Your task to perform on an android device: change keyboard looks Image 0: 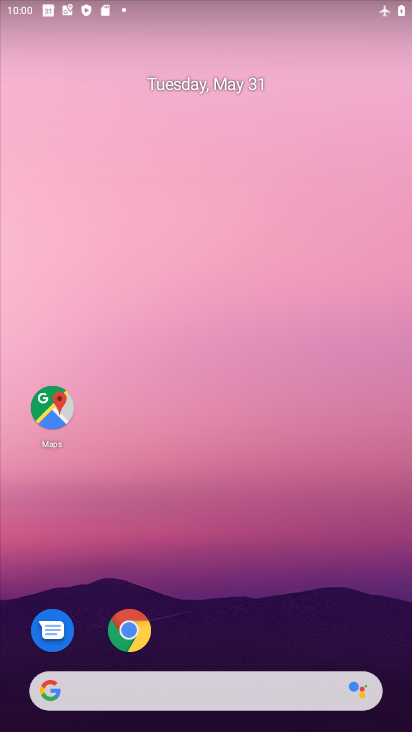
Step 0: drag from (211, 631) to (261, 155)
Your task to perform on an android device: change keyboard looks Image 1: 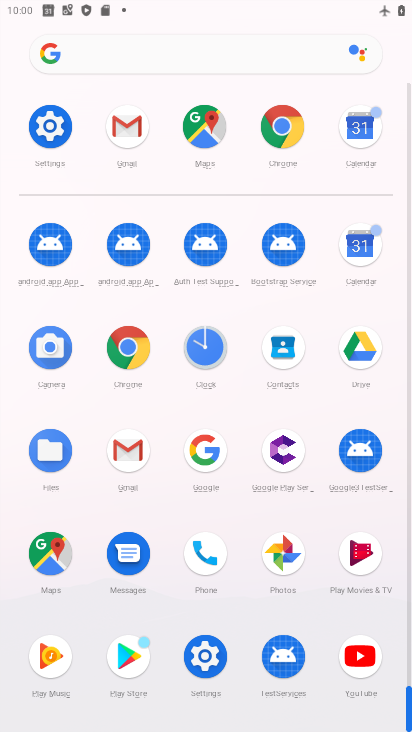
Step 1: click (55, 122)
Your task to perform on an android device: change keyboard looks Image 2: 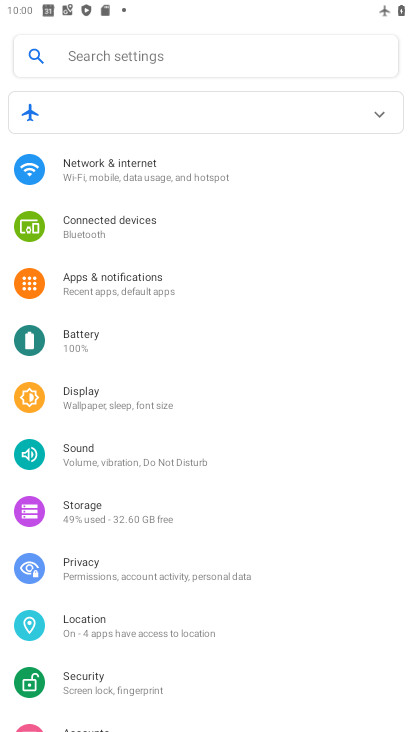
Step 2: drag from (166, 670) to (238, 289)
Your task to perform on an android device: change keyboard looks Image 3: 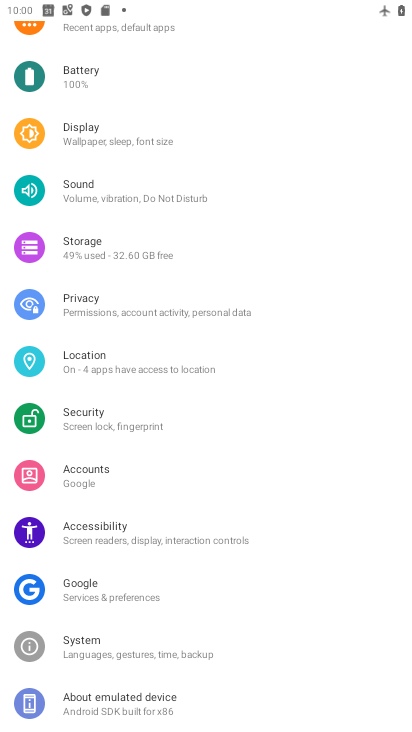
Step 3: click (152, 641)
Your task to perform on an android device: change keyboard looks Image 4: 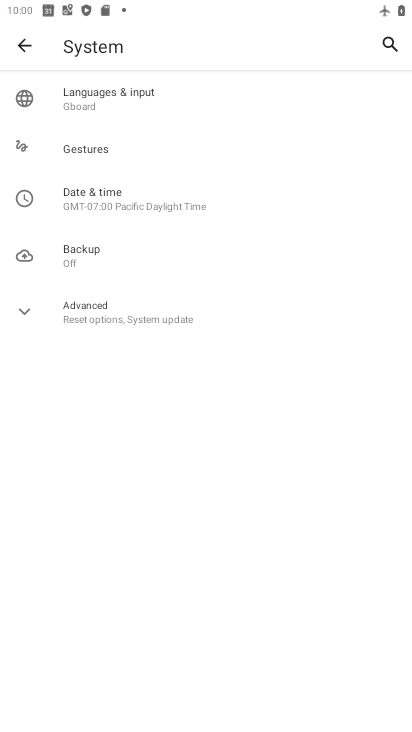
Step 4: click (106, 106)
Your task to perform on an android device: change keyboard looks Image 5: 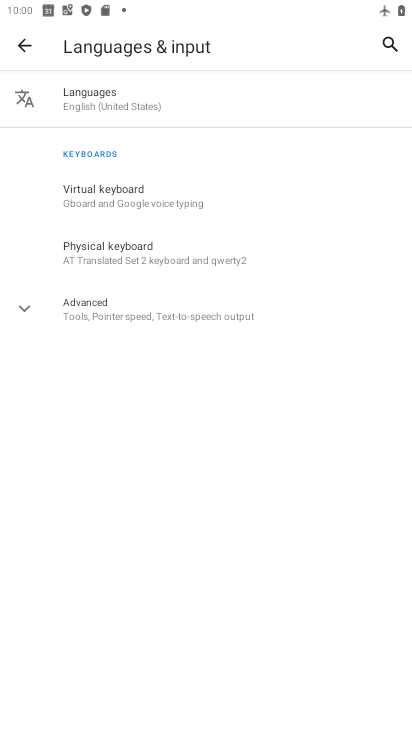
Step 5: click (112, 181)
Your task to perform on an android device: change keyboard looks Image 6: 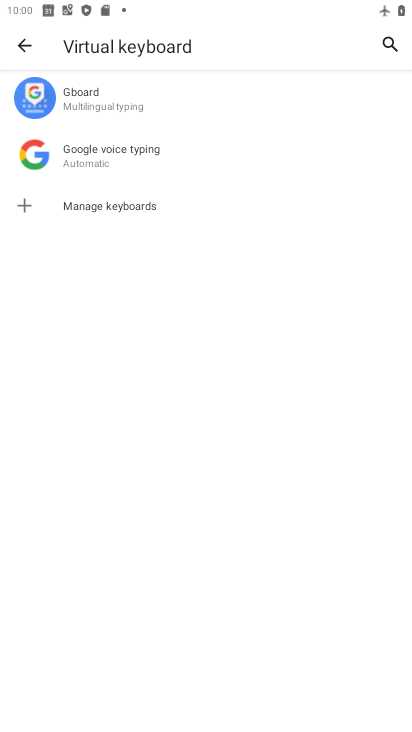
Step 6: click (121, 91)
Your task to perform on an android device: change keyboard looks Image 7: 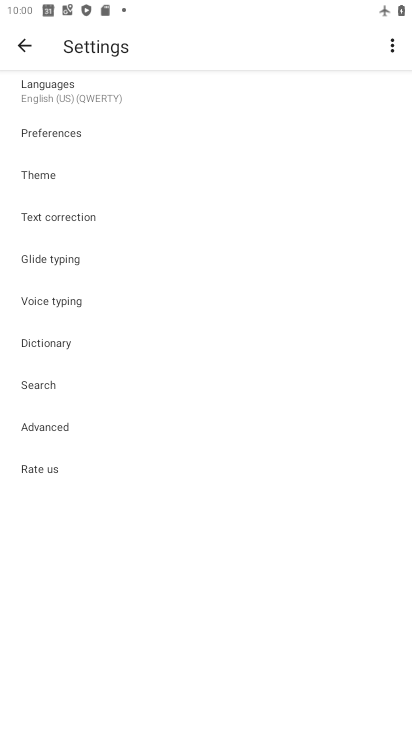
Step 7: click (76, 170)
Your task to perform on an android device: change keyboard looks Image 8: 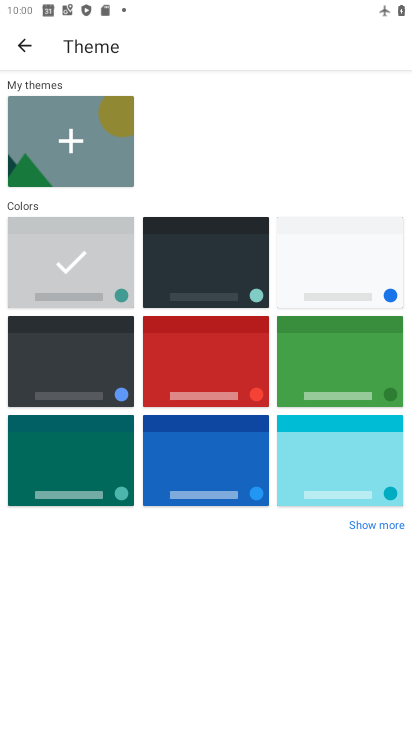
Step 8: click (320, 402)
Your task to perform on an android device: change keyboard looks Image 9: 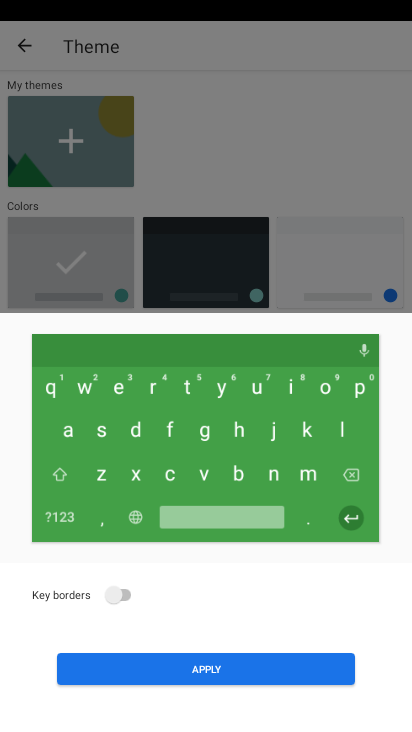
Step 9: click (211, 664)
Your task to perform on an android device: change keyboard looks Image 10: 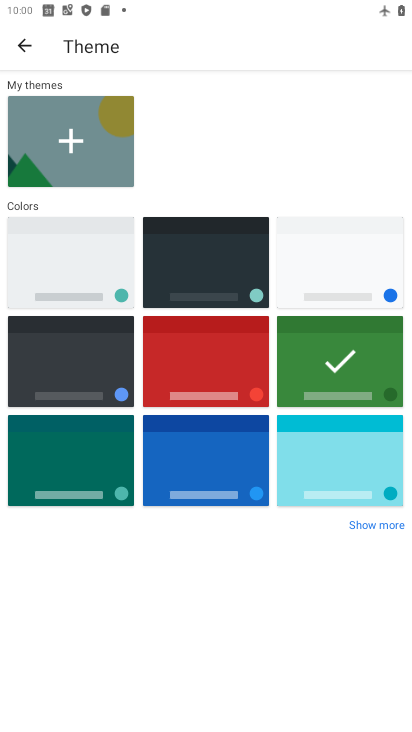
Step 10: task complete